Your task to perform on an android device: open a new tab in the chrome app Image 0: 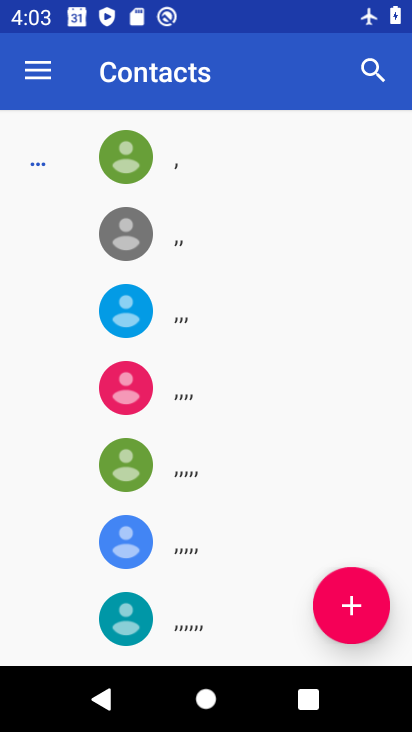
Step 0: press back button
Your task to perform on an android device: open a new tab in the chrome app Image 1: 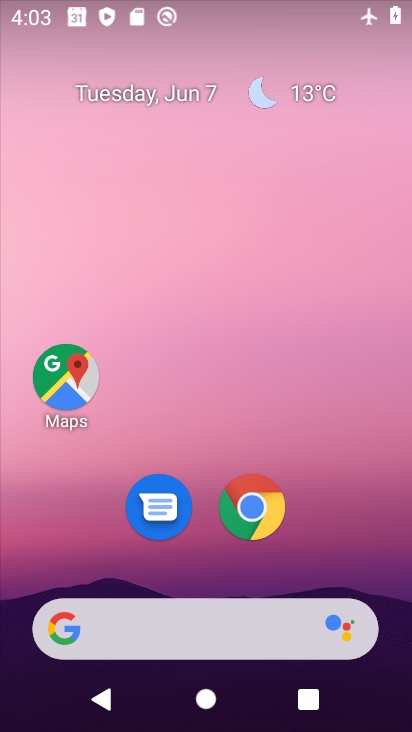
Step 1: drag from (343, 525) to (314, 28)
Your task to perform on an android device: open a new tab in the chrome app Image 2: 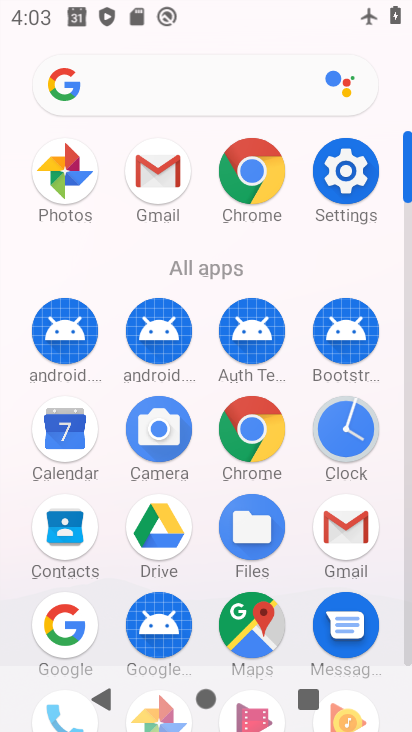
Step 2: click (247, 417)
Your task to perform on an android device: open a new tab in the chrome app Image 3: 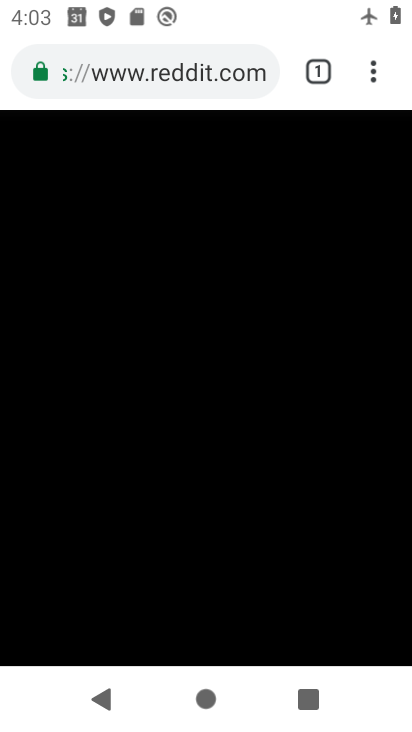
Step 3: task complete